Your task to perform on an android device: change keyboard looks Image 0: 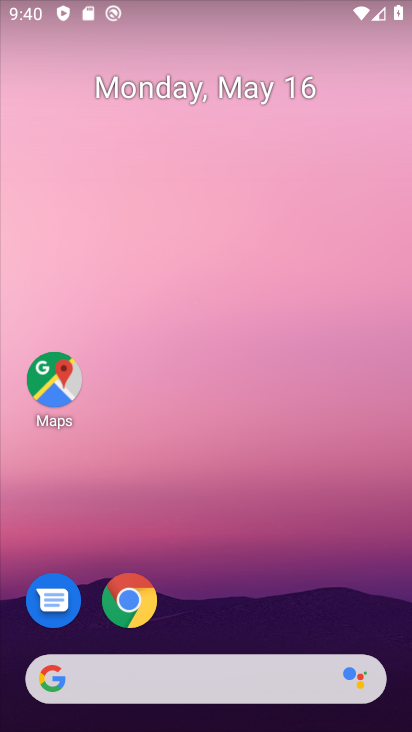
Step 0: drag from (341, 588) to (300, 155)
Your task to perform on an android device: change keyboard looks Image 1: 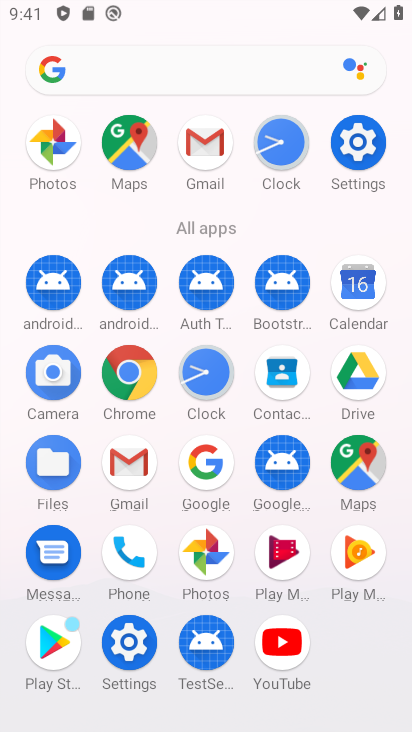
Step 1: click (116, 664)
Your task to perform on an android device: change keyboard looks Image 2: 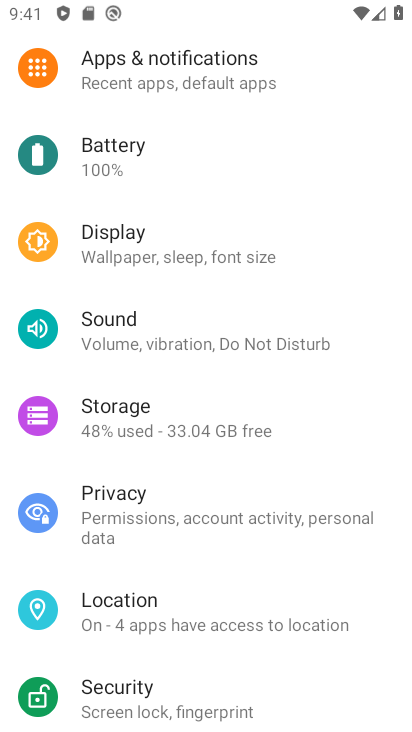
Step 2: drag from (263, 667) to (269, 322)
Your task to perform on an android device: change keyboard looks Image 3: 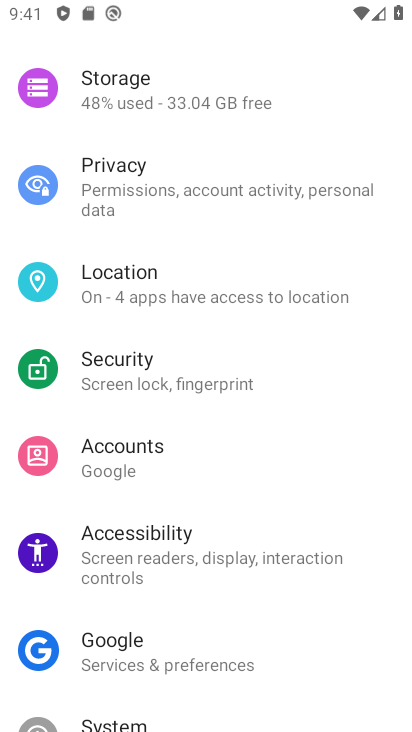
Step 3: drag from (314, 622) to (287, 271)
Your task to perform on an android device: change keyboard looks Image 4: 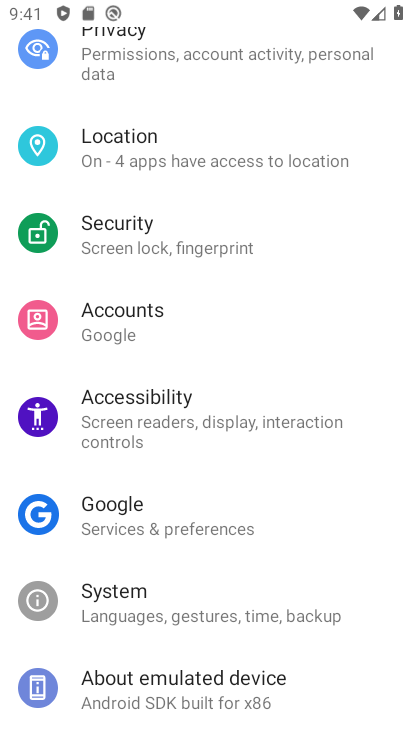
Step 4: click (213, 594)
Your task to perform on an android device: change keyboard looks Image 5: 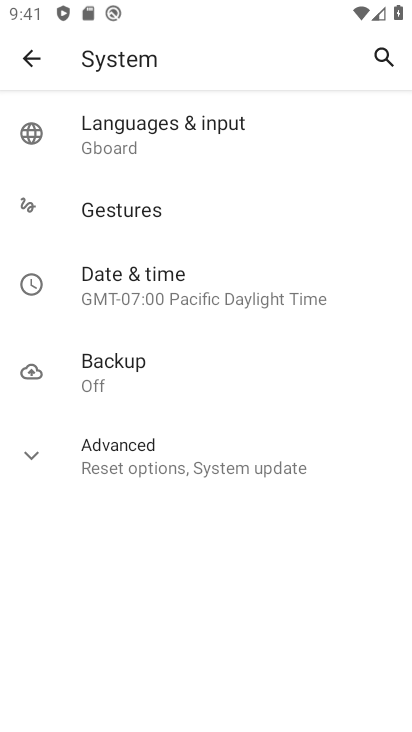
Step 5: click (199, 120)
Your task to perform on an android device: change keyboard looks Image 6: 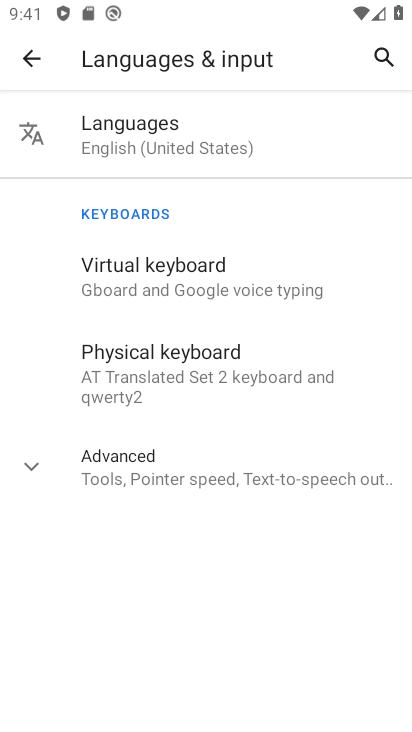
Step 6: click (143, 275)
Your task to perform on an android device: change keyboard looks Image 7: 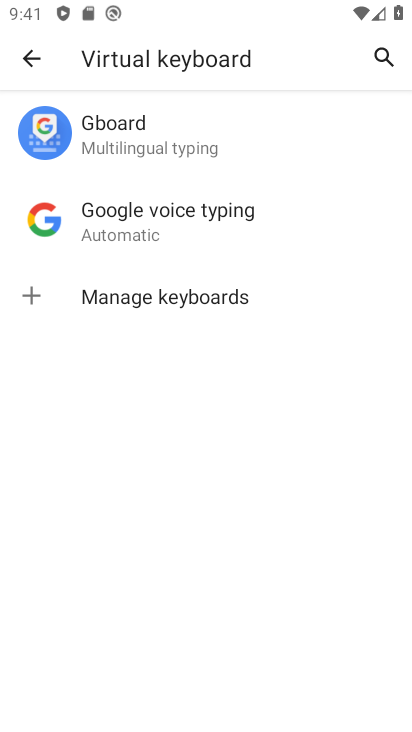
Step 7: click (148, 142)
Your task to perform on an android device: change keyboard looks Image 8: 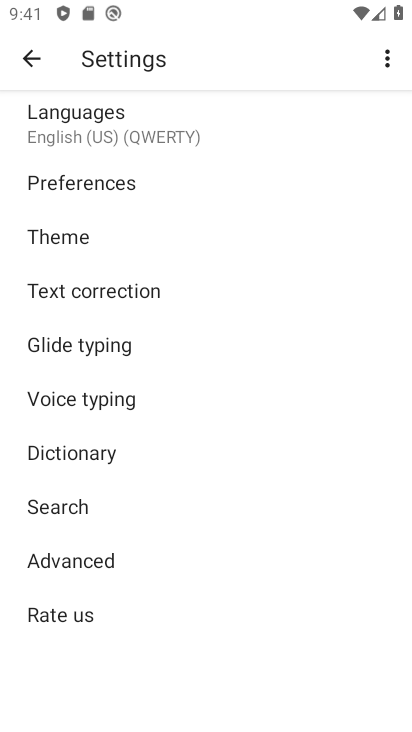
Step 8: click (115, 222)
Your task to perform on an android device: change keyboard looks Image 9: 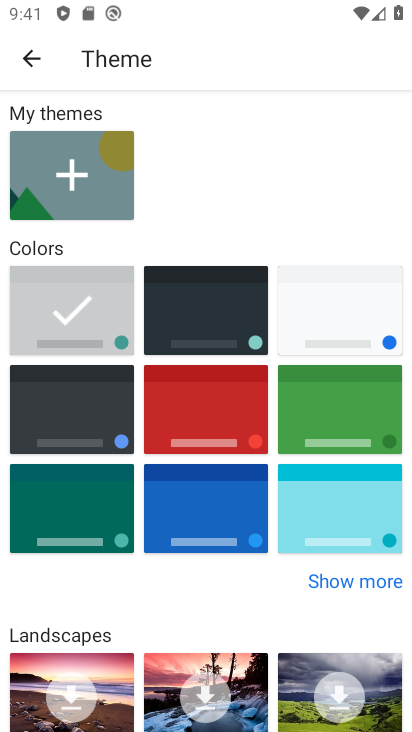
Step 9: click (214, 321)
Your task to perform on an android device: change keyboard looks Image 10: 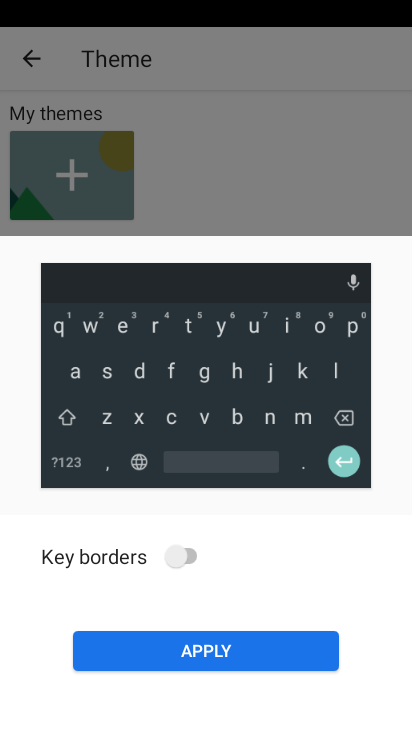
Step 10: click (230, 647)
Your task to perform on an android device: change keyboard looks Image 11: 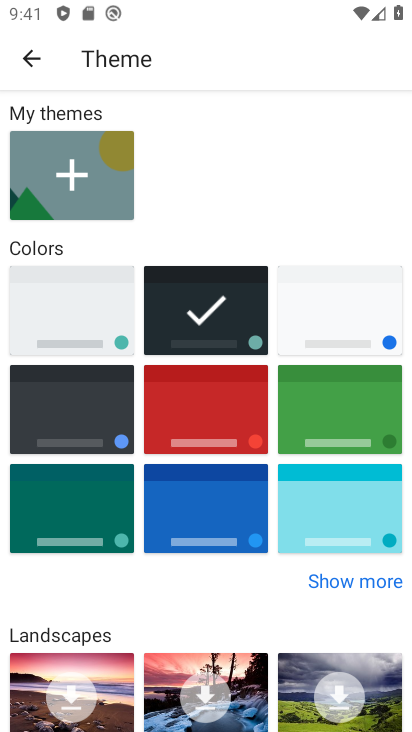
Step 11: task complete